Your task to perform on an android device: Go to Yahoo.com Image 0: 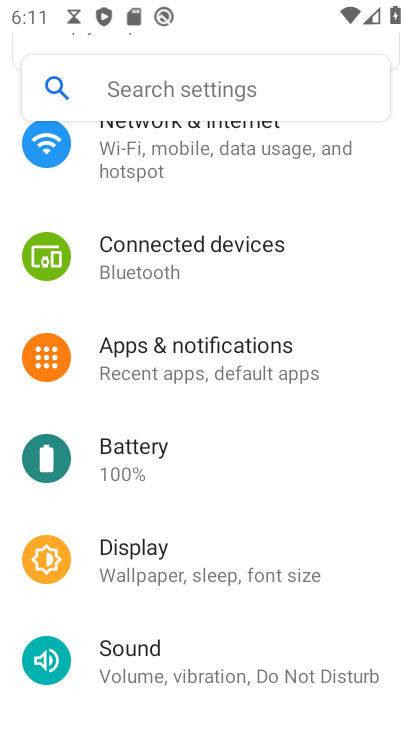
Step 0: press home button
Your task to perform on an android device: Go to Yahoo.com Image 1: 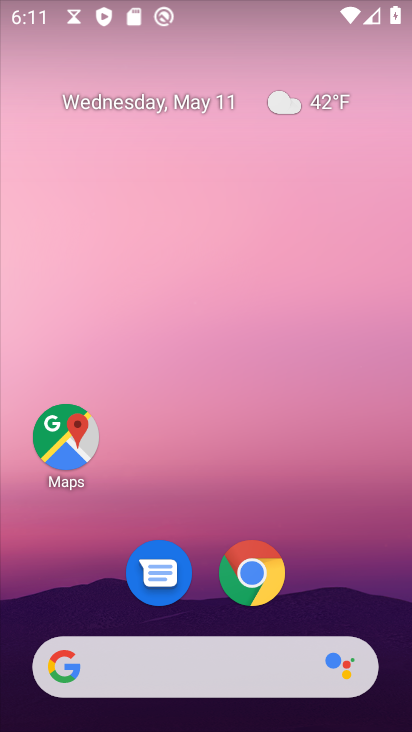
Step 1: click (267, 584)
Your task to perform on an android device: Go to Yahoo.com Image 2: 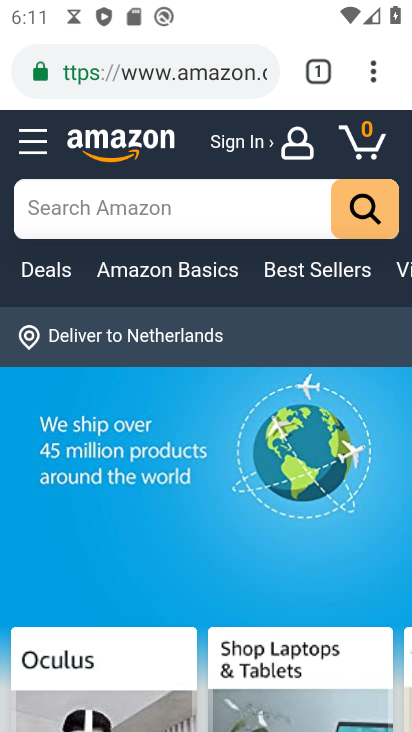
Step 2: press back button
Your task to perform on an android device: Go to Yahoo.com Image 3: 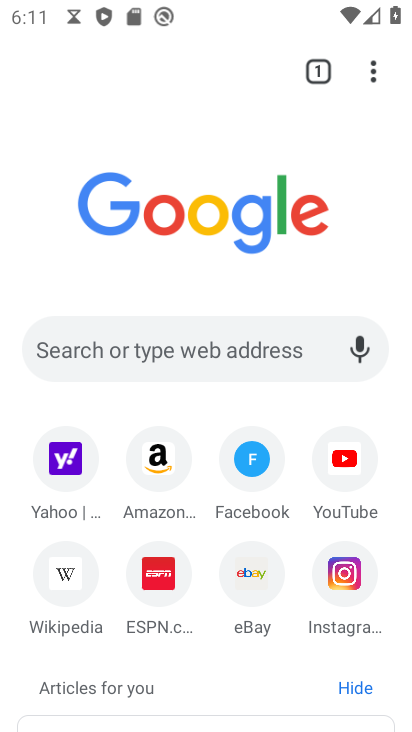
Step 3: click (71, 467)
Your task to perform on an android device: Go to Yahoo.com Image 4: 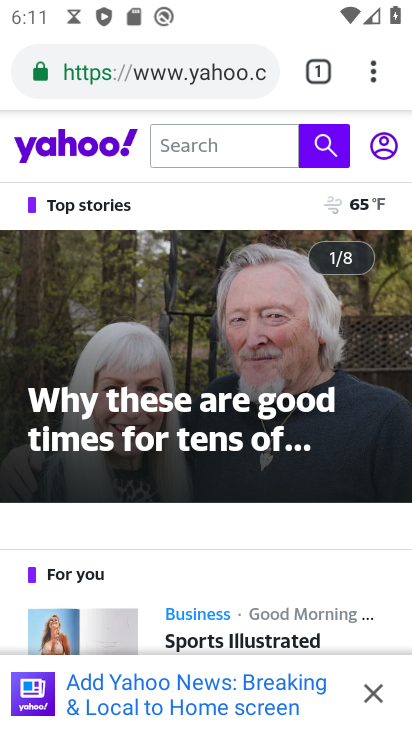
Step 4: task complete